Your task to perform on an android device: Open sound settings Image 0: 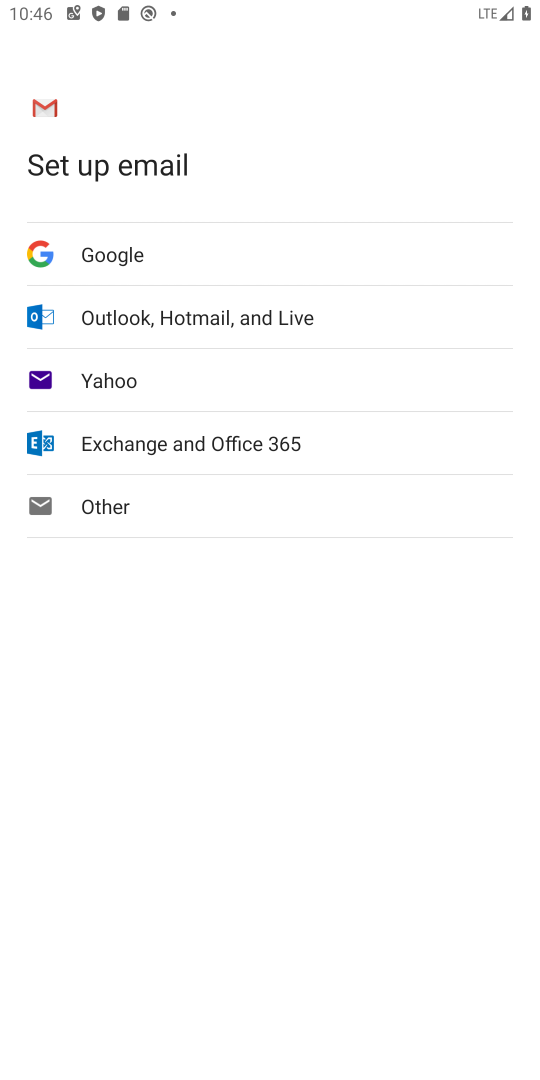
Step 0: press home button
Your task to perform on an android device: Open sound settings Image 1: 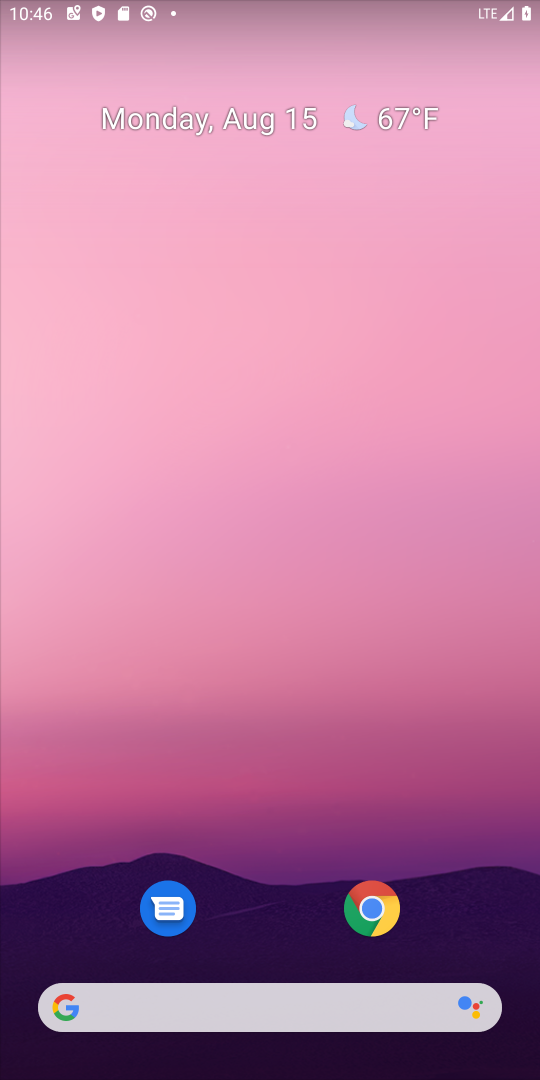
Step 1: drag from (235, 471) to (197, 249)
Your task to perform on an android device: Open sound settings Image 2: 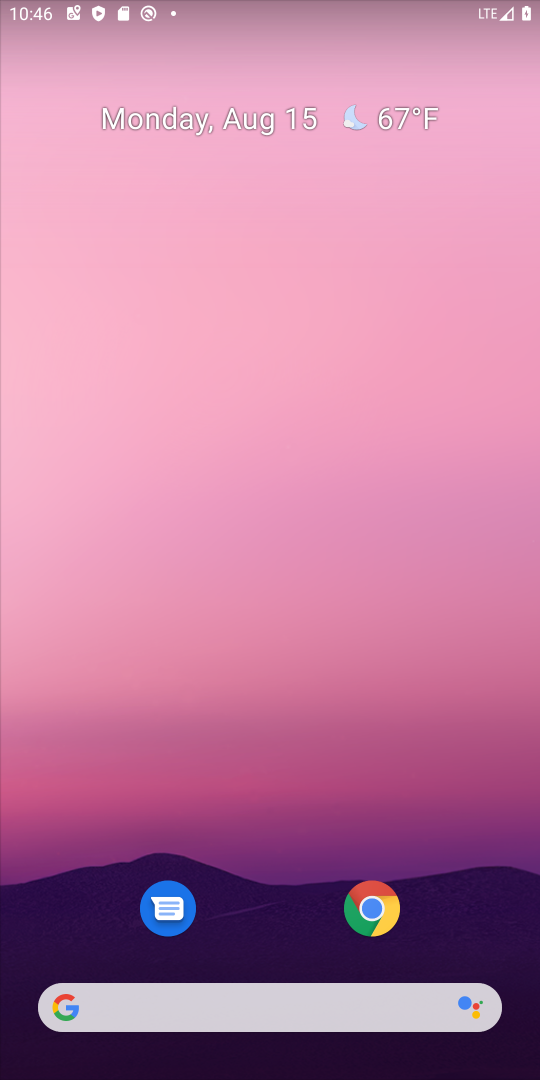
Step 2: drag from (256, 891) to (220, 320)
Your task to perform on an android device: Open sound settings Image 3: 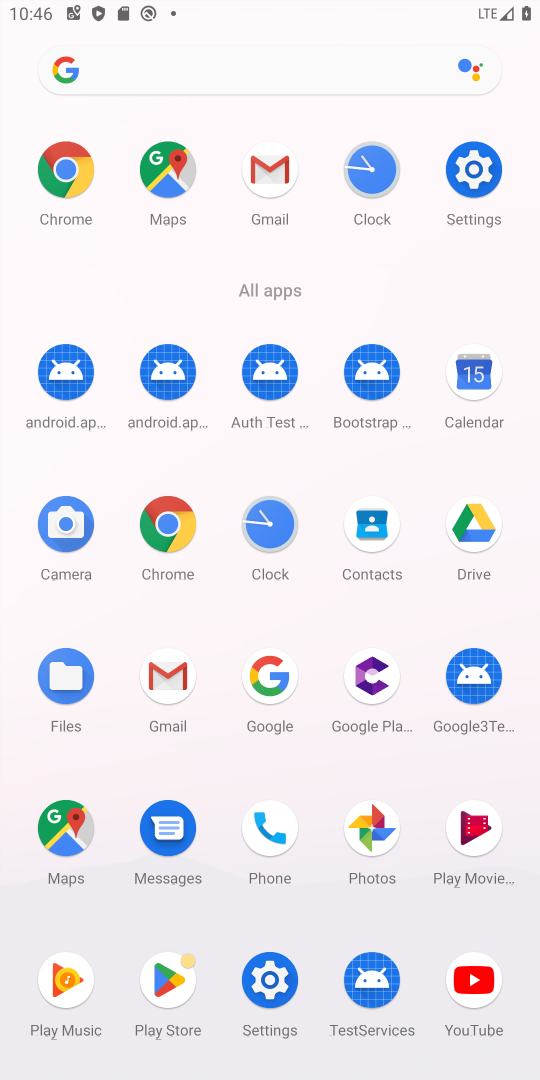
Step 3: click (493, 169)
Your task to perform on an android device: Open sound settings Image 4: 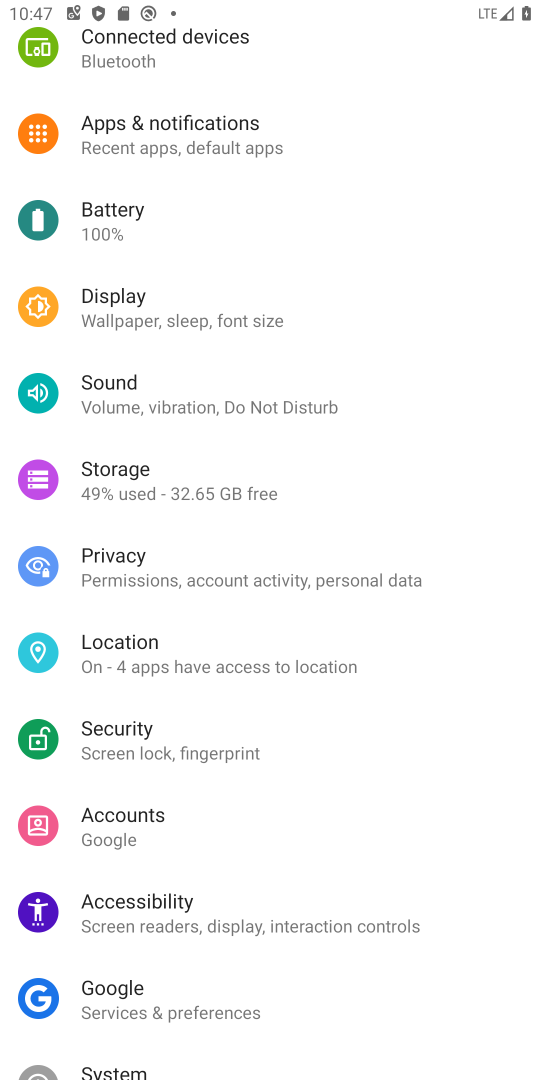
Step 4: click (177, 386)
Your task to perform on an android device: Open sound settings Image 5: 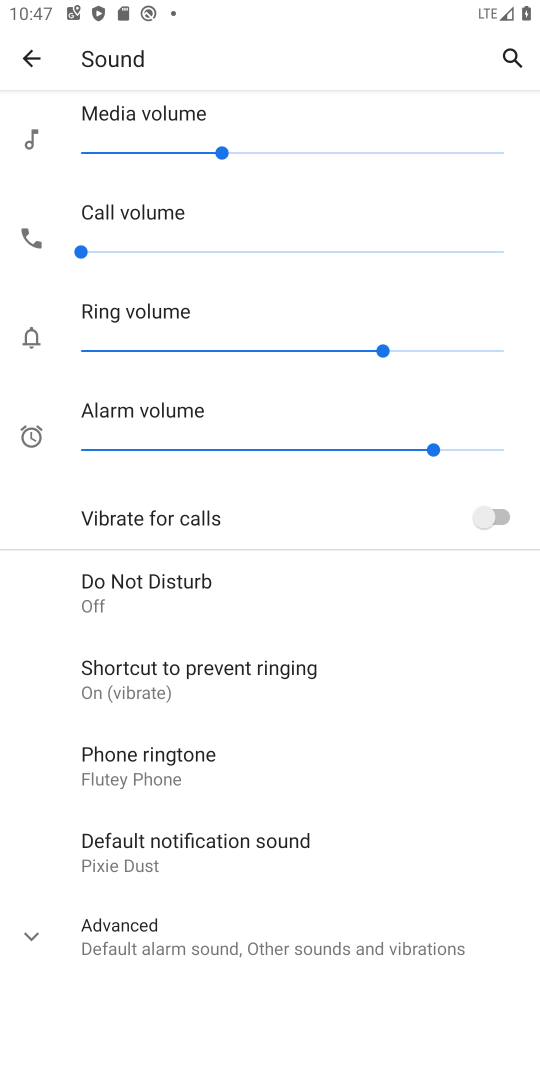
Step 5: task complete